Your task to perform on an android device: turn off location Image 0: 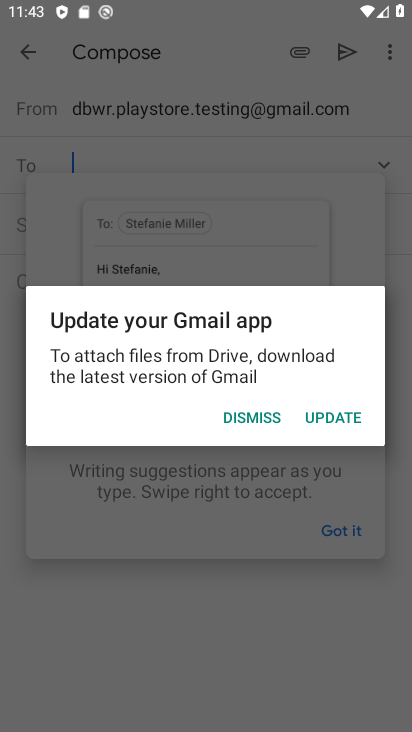
Step 0: press home button
Your task to perform on an android device: turn off location Image 1: 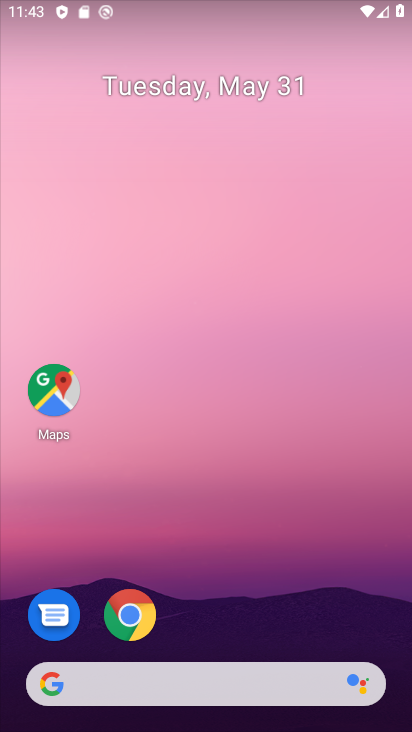
Step 1: drag from (189, 677) to (274, 136)
Your task to perform on an android device: turn off location Image 2: 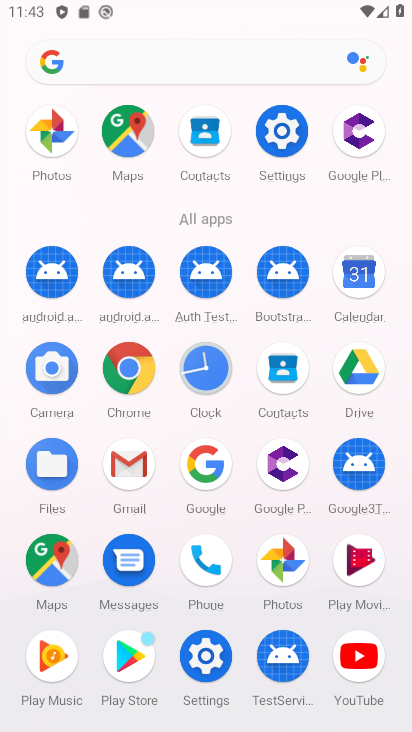
Step 2: click (283, 98)
Your task to perform on an android device: turn off location Image 3: 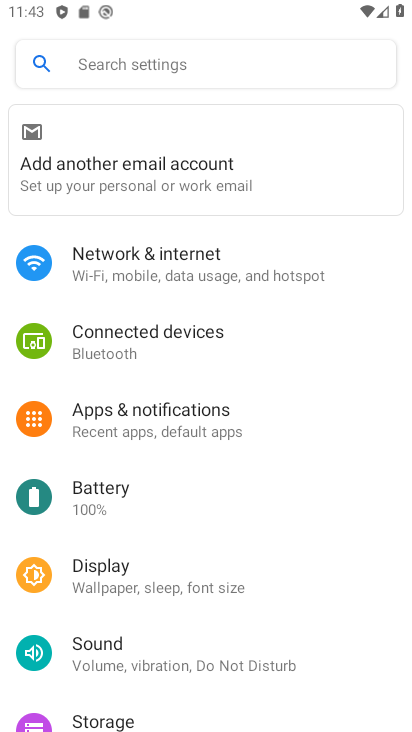
Step 3: drag from (188, 568) to (262, 0)
Your task to perform on an android device: turn off location Image 4: 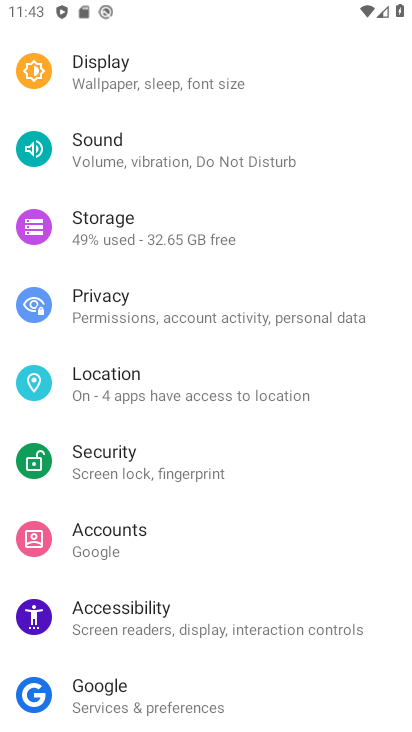
Step 4: click (128, 382)
Your task to perform on an android device: turn off location Image 5: 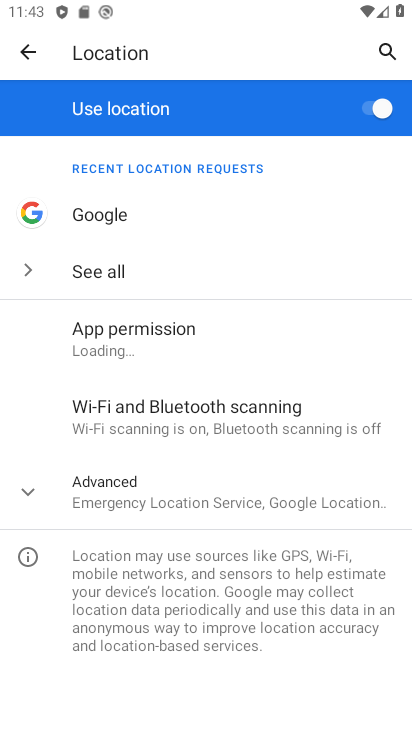
Step 5: click (374, 111)
Your task to perform on an android device: turn off location Image 6: 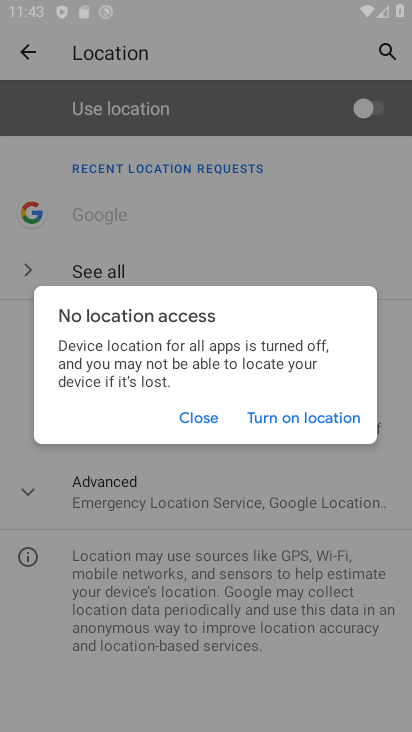
Step 6: task complete